Your task to perform on an android device: Open calendar and show me the first week of next month Image 0: 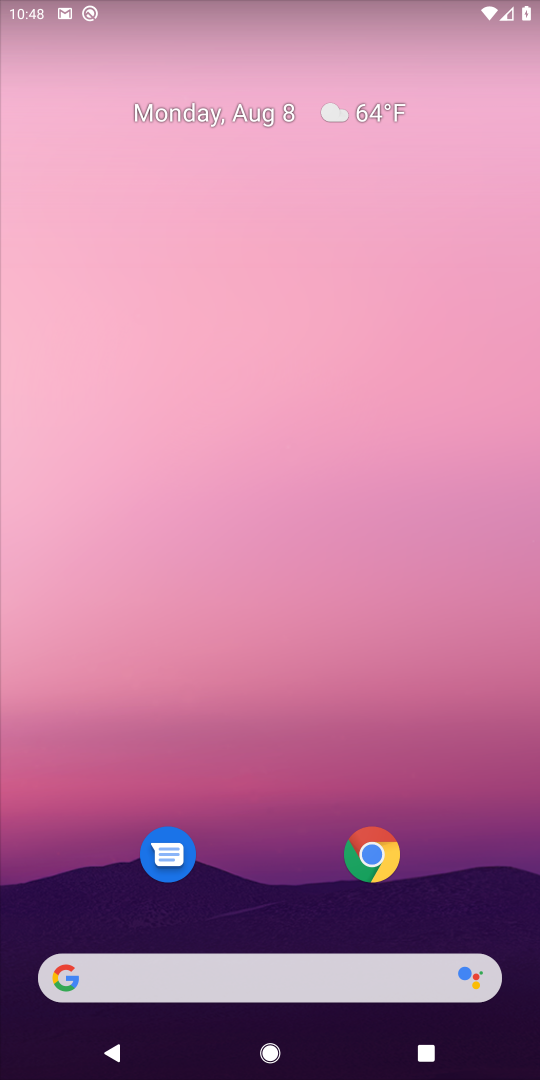
Step 0: click (188, 101)
Your task to perform on an android device: Open calendar and show me the first week of next month Image 1: 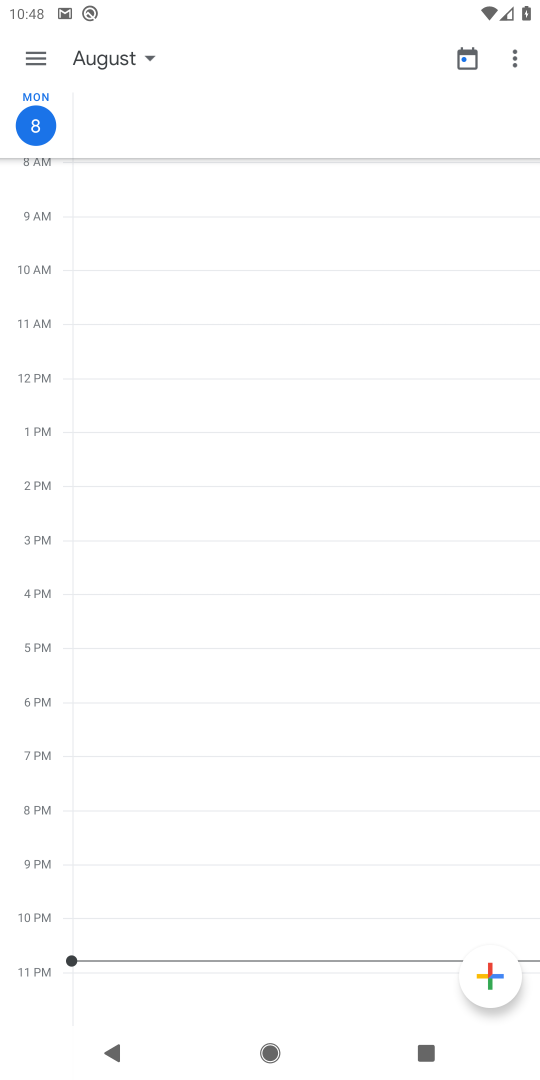
Step 1: task complete